Your task to perform on an android device: Go to sound settings Image 0: 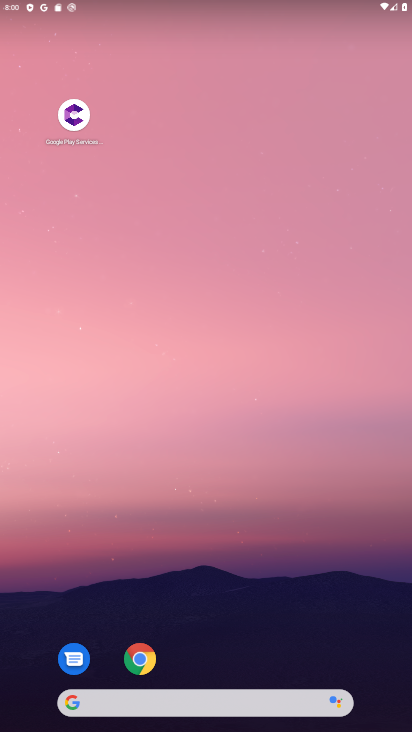
Step 0: drag from (312, 612) to (271, 221)
Your task to perform on an android device: Go to sound settings Image 1: 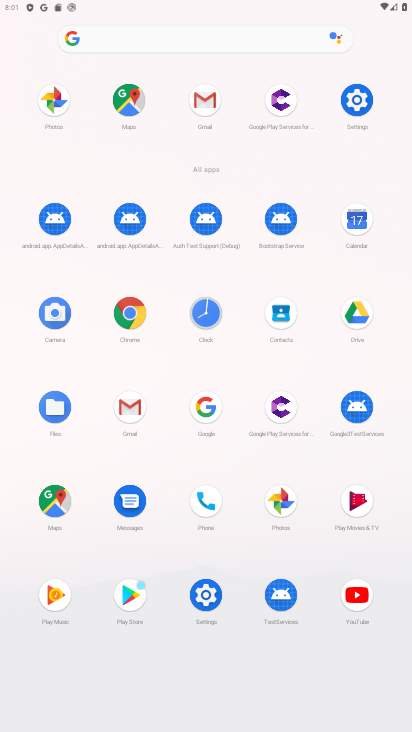
Step 1: click (358, 92)
Your task to perform on an android device: Go to sound settings Image 2: 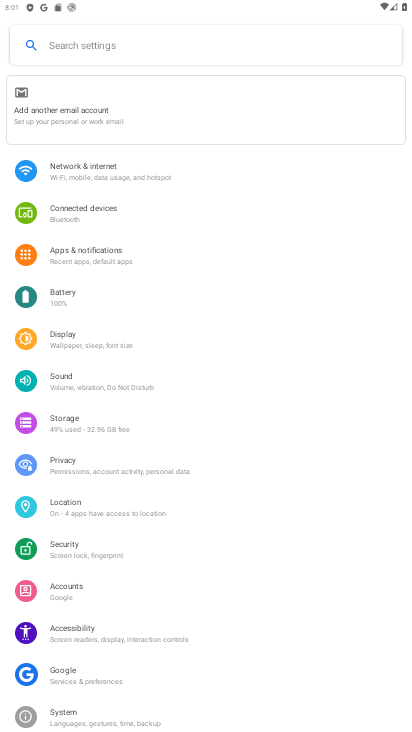
Step 2: click (113, 389)
Your task to perform on an android device: Go to sound settings Image 3: 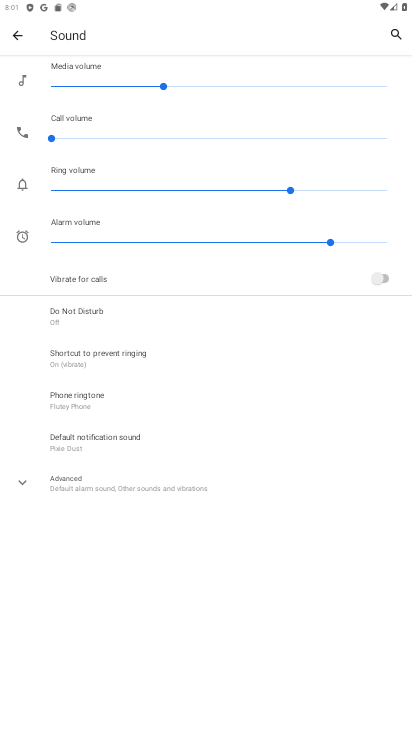
Step 3: task complete